Your task to perform on an android device: turn off priority inbox in the gmail app Image 0: 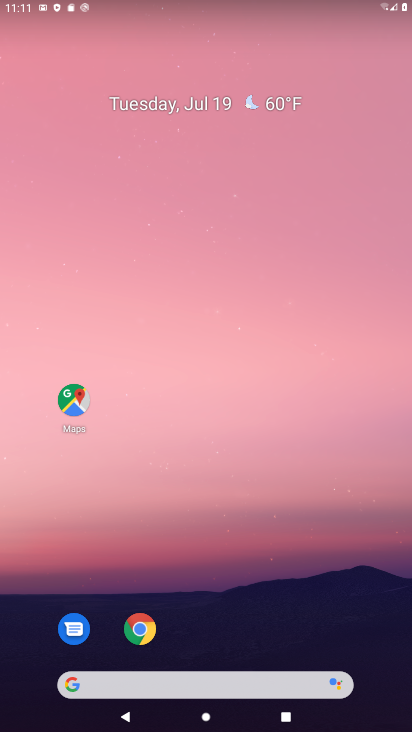
Step 0: drag from (296, 643) to (288, 36)
Your task to perform on an android device: turn off priority inbox in the gmail app Image 1: 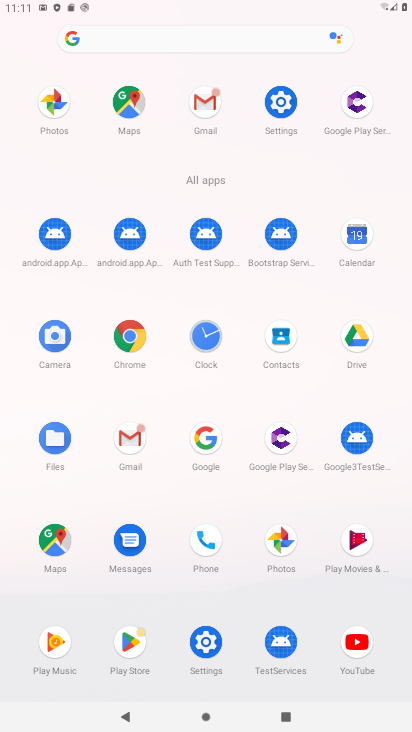
Step 1: click (143, 435)
Your task to perform on an android device: turn off priority inbox in the gmail app Image 2: 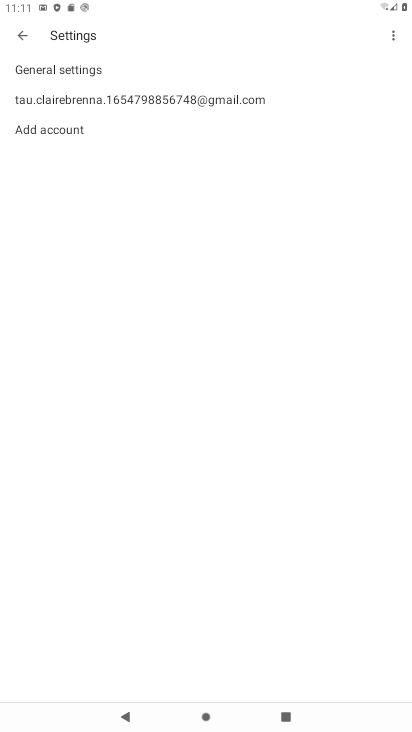
Step 2: click (208, 98)
Your task to perform on an android device: turn off priority inbox in the gmail app Image 3: 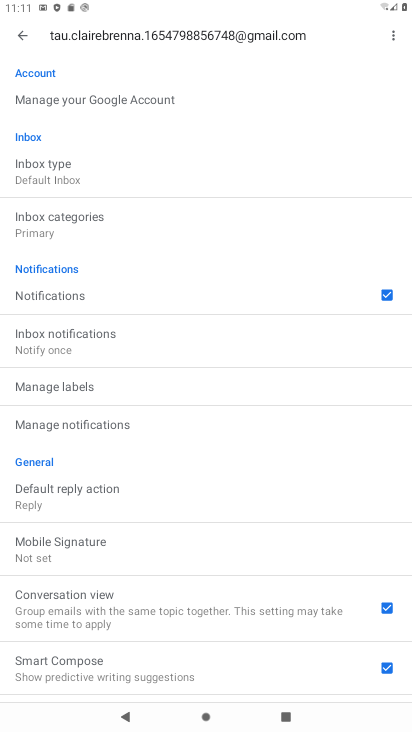
Step 3: click (62, 170)
Your task to perform on an android device: turn off priority inbox in the gmail app Image 4: 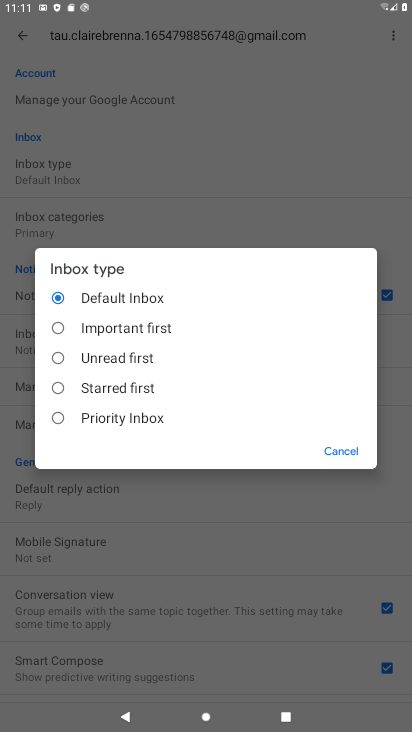
Step 4: click (105, 292)
Your task to perform on an android device: turn off priority inbox in the gmail app Image 5: 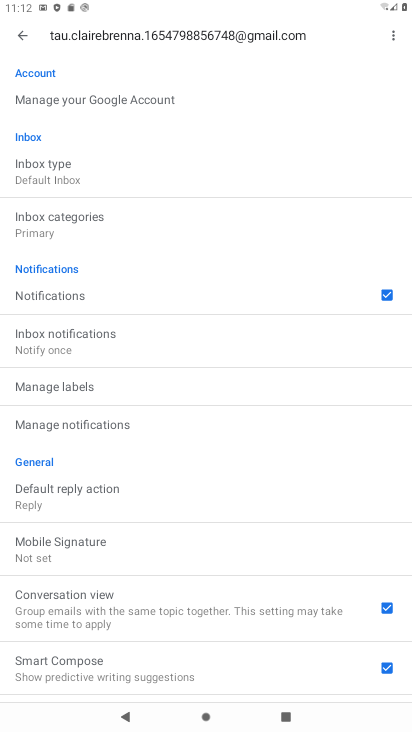
Step 5: task complete